Your task to perform on an android device: Go to Reddit.com Image 0: 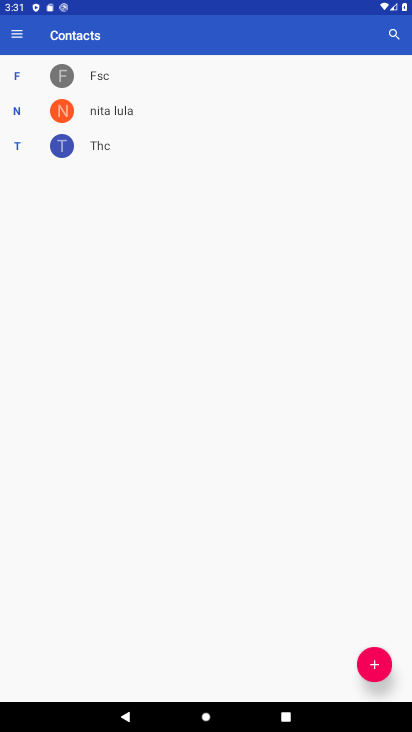
Step 0: press home button
Your task to perform on an android device: Go to Reddit.com Image 1: 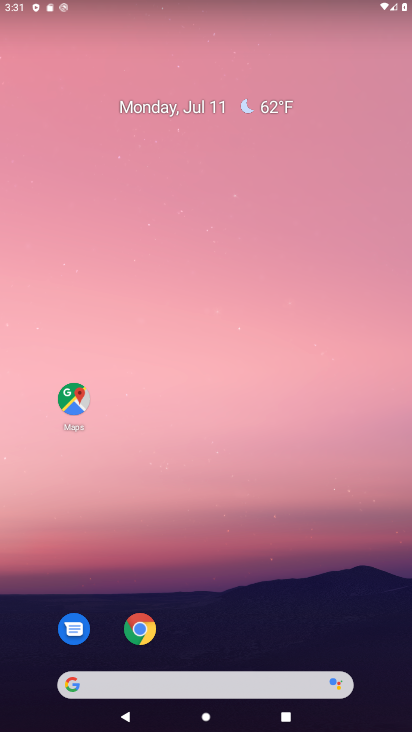
Step 1: click (147, 630)
Your task to perform on an android device: Go to Reddit.com Image 2: 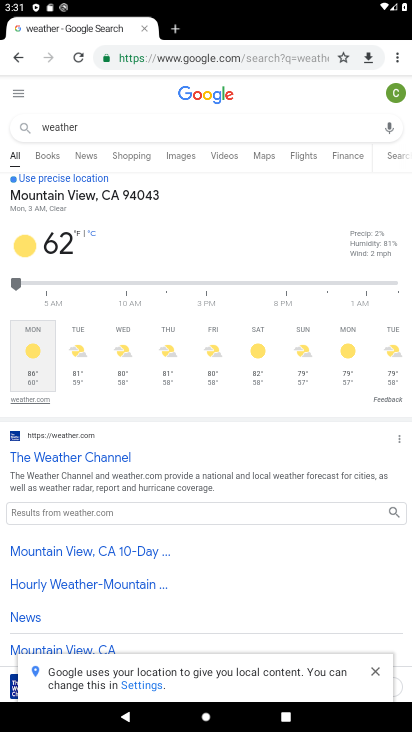
Step 2: click (175, 33)
Your task to perform on an android device: Go to Reddit.com Image 3: 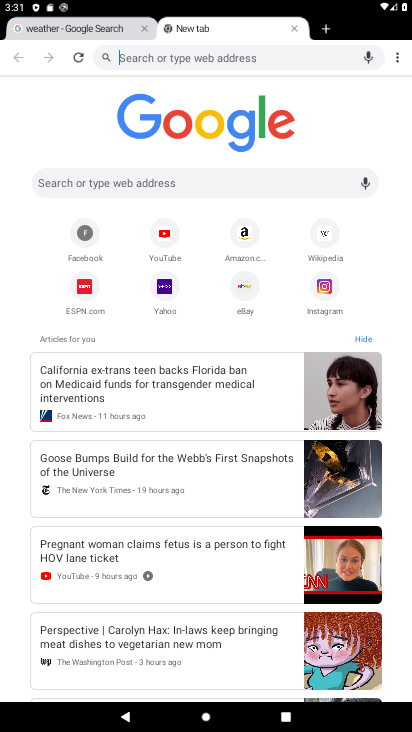
Step 3: click (149, 187)
Your task to perform on an android device: Go to Reddit.com Image 4: 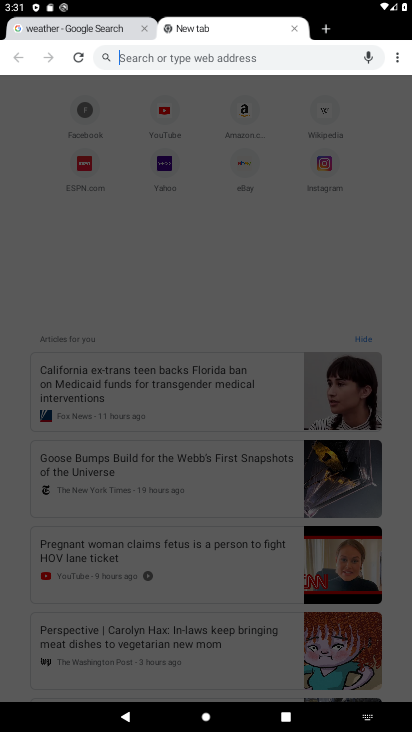
Step 4: type "Reddit.com"
Your task to perform on an android device: Go to Reddit.com Image 5: 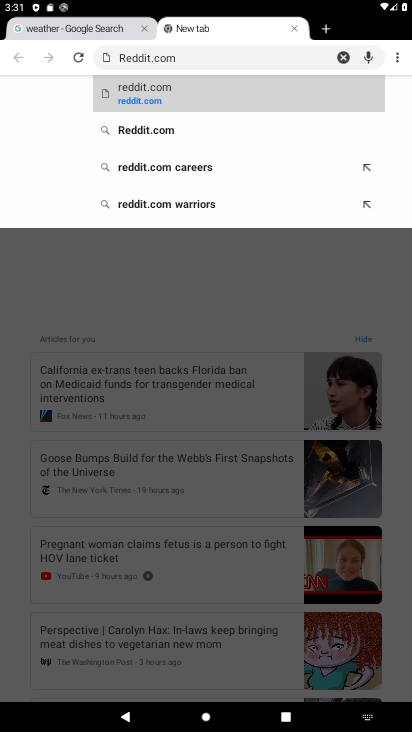
Step 5: click (147, 100)
Your task to perform on an android device: Go to Reddit.com Image 6: 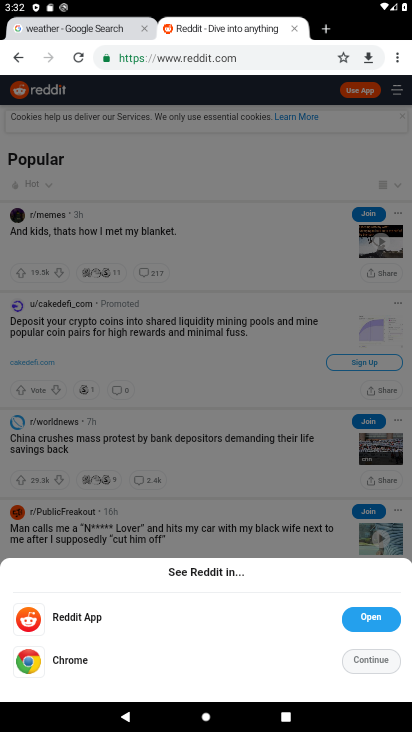
Step 6: click (358, 661)
Your task to perform on an android device: Go to Reddit.com Image 7: 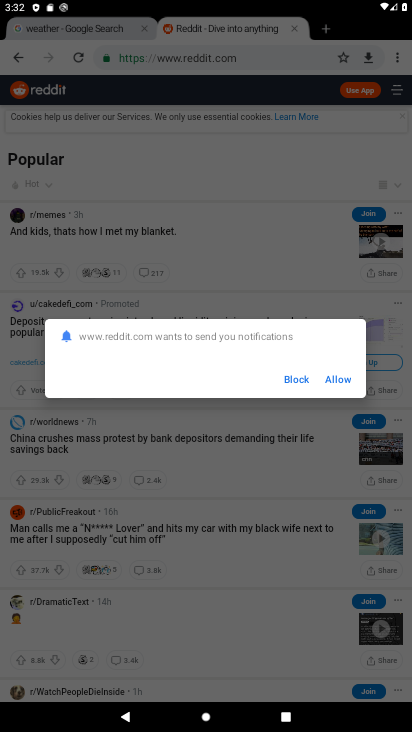
Step 7: task complete